Your task to perform on an android device: turn off translation in the chrome app Image 0: 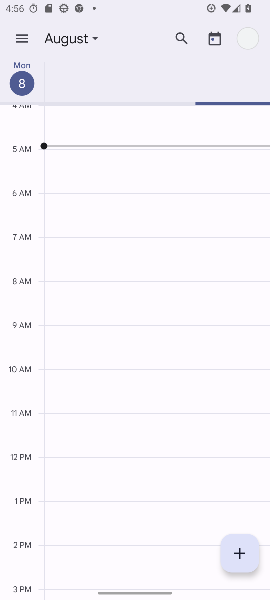
Step 0: drag from (120, 428) to (120, 276)
Your task to perform on an android device: turn off translation in the chrome app Image 1: 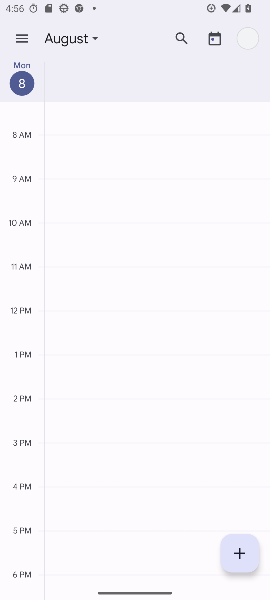
Step 1: press back button
Your task to perform on an android device: turn off translation in the chrome app Image 2: 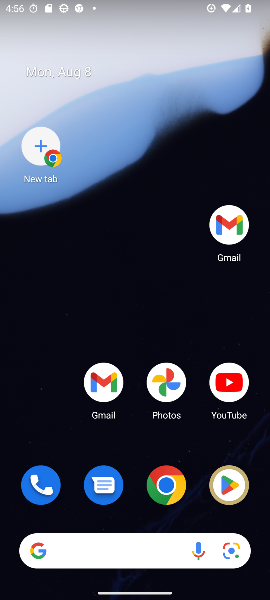
Step 2: drag from (174, 518) to (144, 291)
Your task to perform on an android device: turn off translation in the chrome app Image 3: 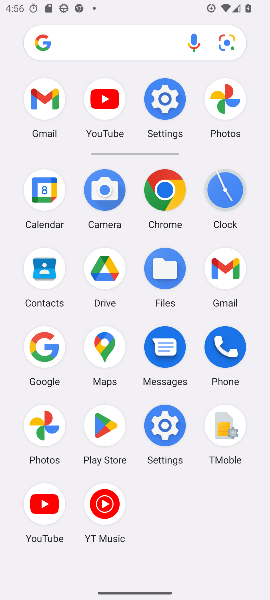
Step 3: click (171, 193)
Your task to perform on an android device: turn off translation in the chrome app Image 4: 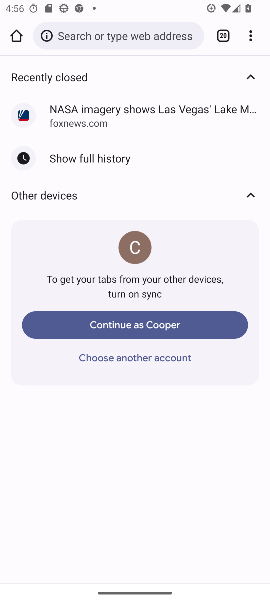
Step 4: press back button
Your task to perform on an android device: turn off translation in the chrome app Image 5: 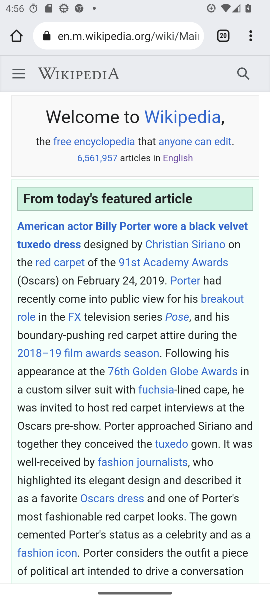
Step 5: drag from (245, 34) to (140, 467)
Your task to perform on an android device: turn off translation in the chrome app Image 6: 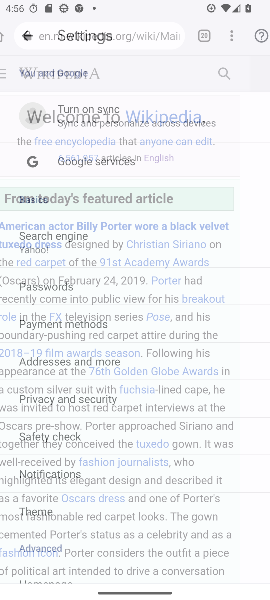
Step 6: click (139, 467)
Your task to perform on an android device: turn off translation in the chrome app Image 7: 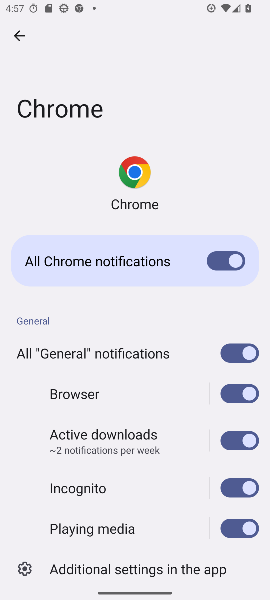
Step 7: click (12, 30)
Your task to perform on an android device: turn off translation in the chrome app Image 8: 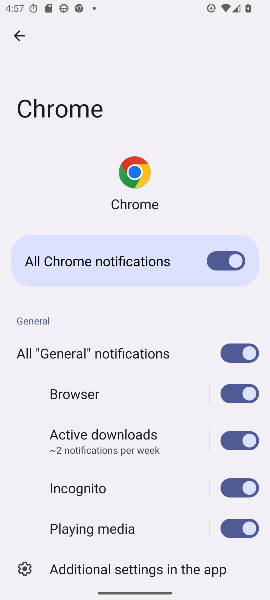
Step 8: click (9, 33)
Your task to perform on an android device: turn off translation in the chrome app Image 9: 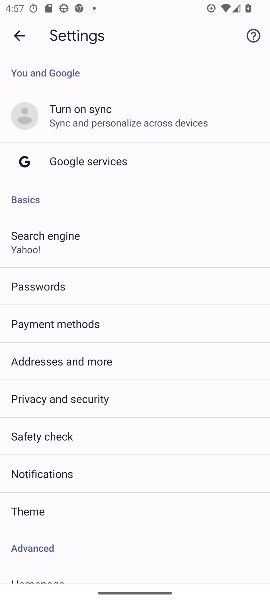
Step 9: drag from (120, 546) to (78, 241)
Your task to perform on an android device: turn off translation in the chrome app Image 10: 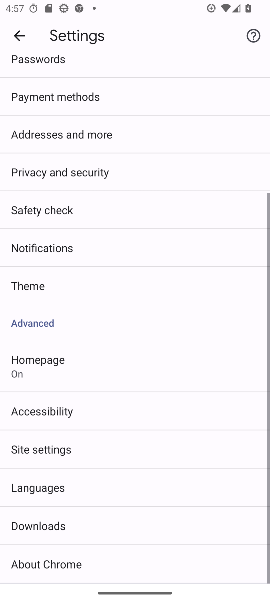
Step 10: drag from (147, 448) to (111, 185)
Your task to perform on an android device: turn off translation in the chrome app Image 11: 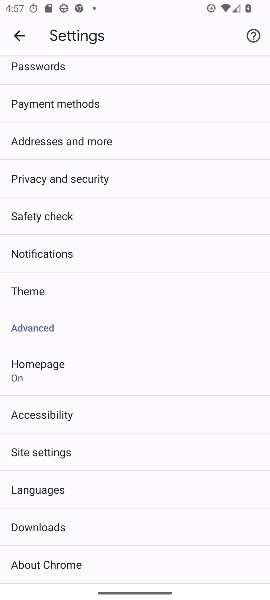
Step 11: click (72, 484)
Your task to perform on an android device: turn off translation in the chrome app Image 12: 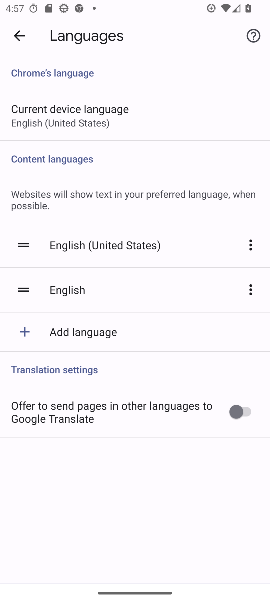
Step 12: click (238, 411)
Your task to perform on an android device: turn off translation in the chrome app Image 13: 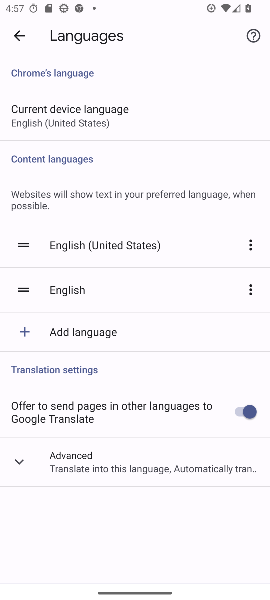
Step 13: click (253, 407)
Your task to perform on an android device: turn off translation in the chrome app Image 14: 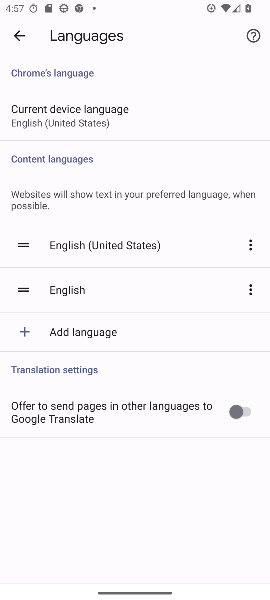
Step 14: task complete